Your task to perform on an android device: set the stopwatch Image 0: 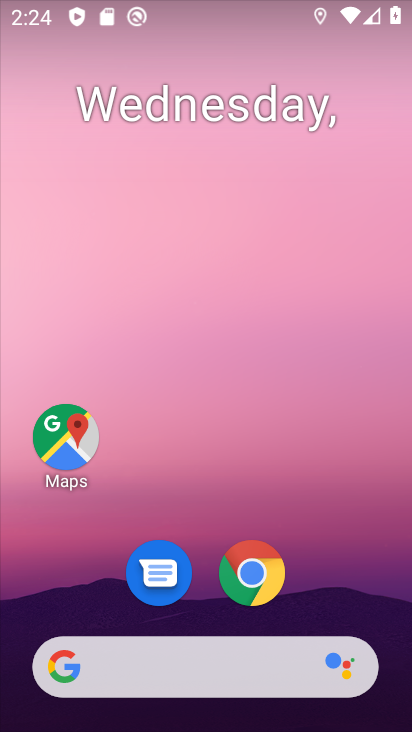
Step 0: drag from (202, 608) to (163, 198)
Your task to perform on an android device: set the stopwatch Image 1: 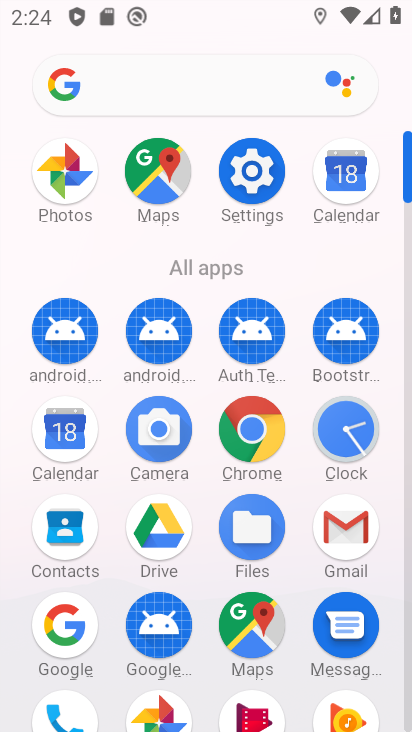
Step 1: click (346, 448)
Your task to perform on an android device: set the stopwatch Image 2: 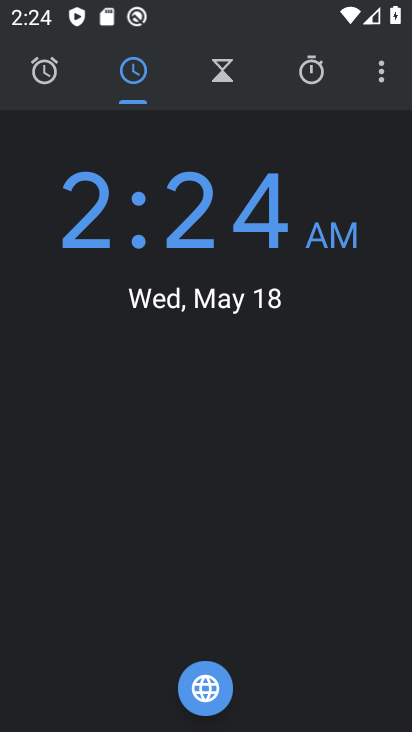
Step 2: click (301, 82)
Your task to perform on an android device: set the stopwatch Image 3: 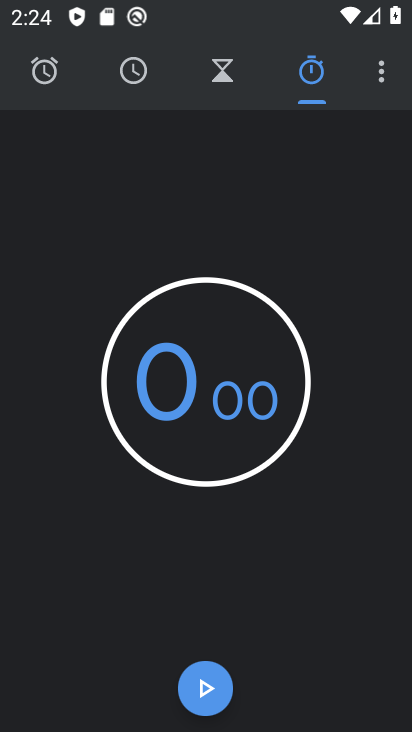
Step 3: click (204, 669)
Your task to perform on an android device: set the stopwatch Image 4: 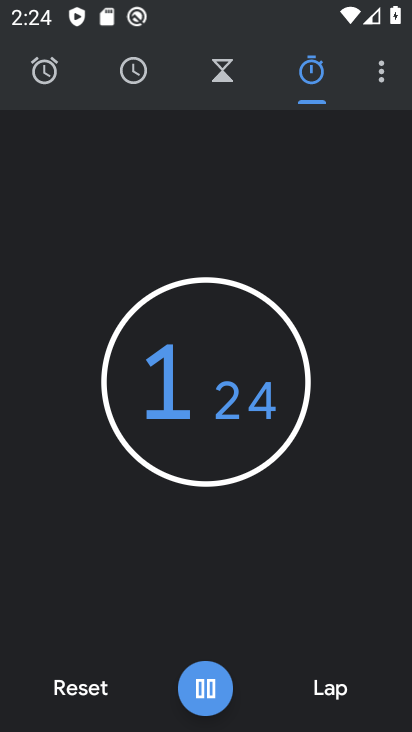
Step 4: task complete